Your task to perform on an android device: turn off smart reply in the gmail app Image 0: 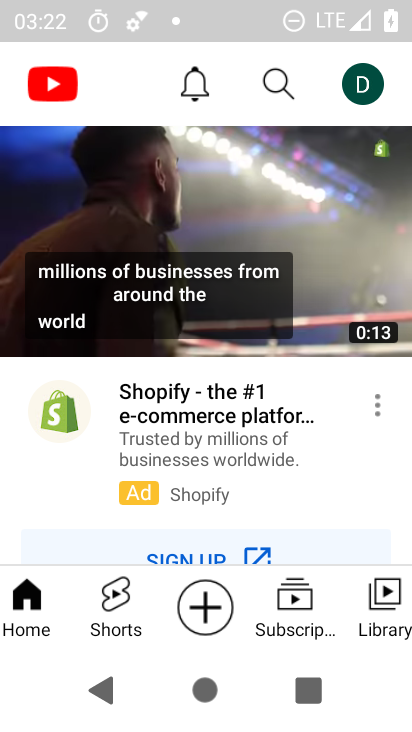
Step 0: press home button
Your task to perform on an android device: turn off smart reply in the gmail app Image 1: 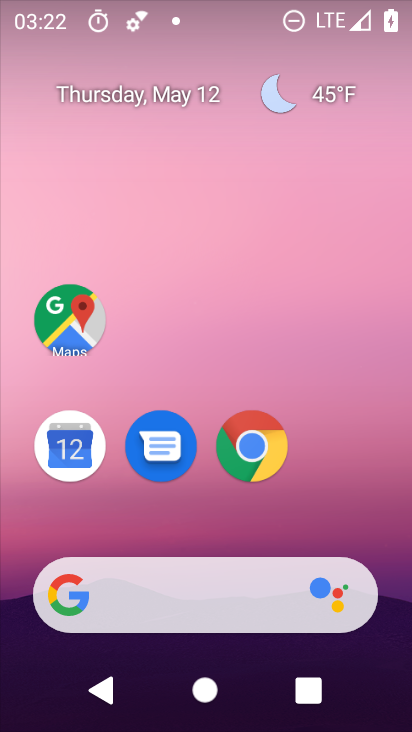
Step 1: drag from (229, 500) to (231, 174)
Your task to perform on an android device: turn off smart reply in the gmail app Image 2: 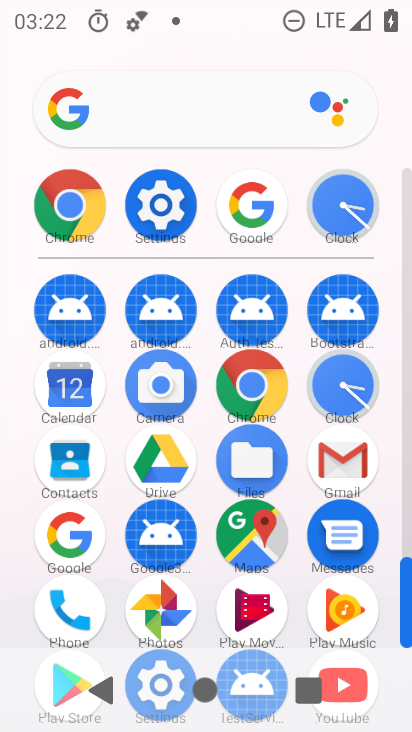
Step 2: click (329, 442)
Your task to perform on an android device: turn off smart reply in the gmail app Image 3: 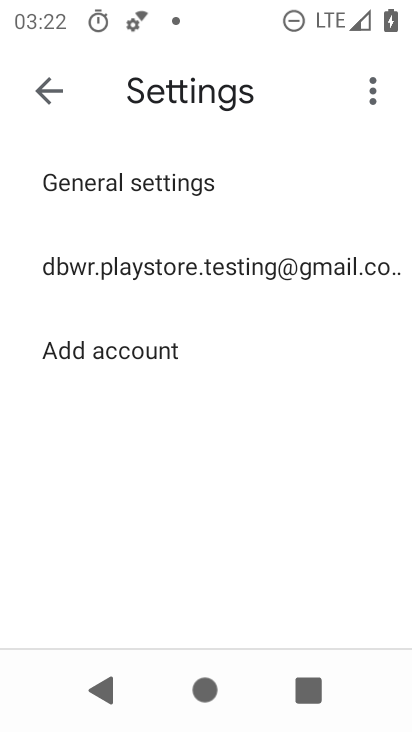
Step 3: click (59, 78)
Your task to perform on an android device: turn off smart reply in the gmail app Image 4: 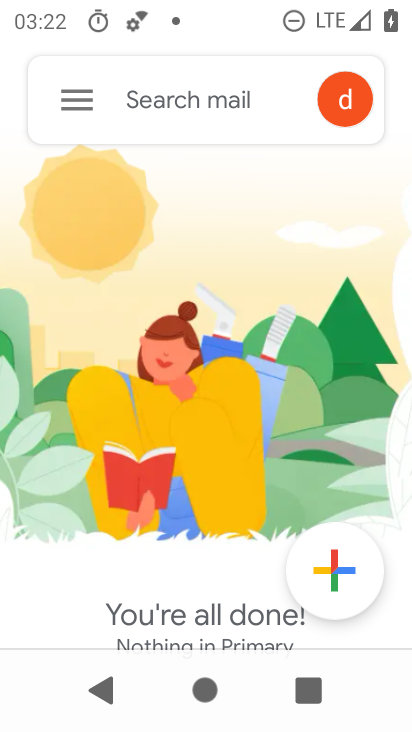
Step 4: click (60, 80)
Your task to perform on an android device: turn off smart reply in the gmail app Image 5: 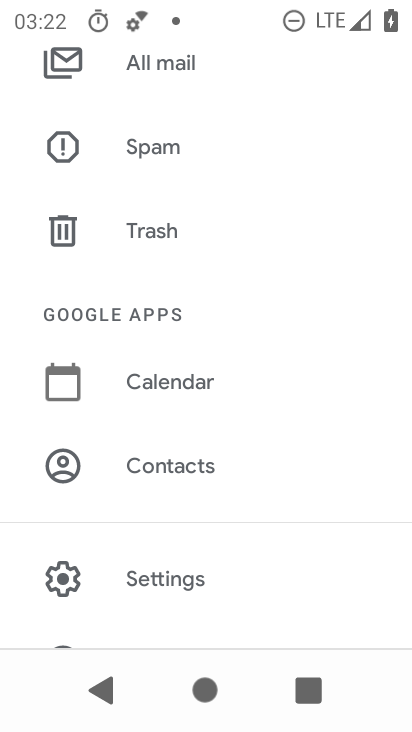
Step 5: drag from (151, 505) to (186, 250)
Your task to perform on an android device: turn off smart reply in the gmail app Image 6: 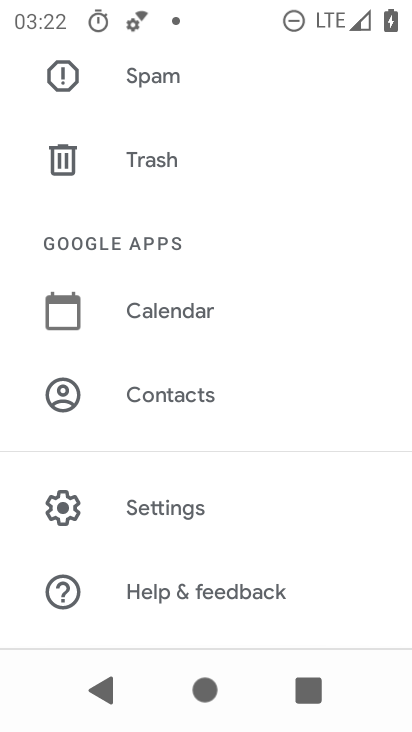
Step 6: click (148, 499)
Your task to perform on an android device: turn off smart reply in the gmail app Image 7: 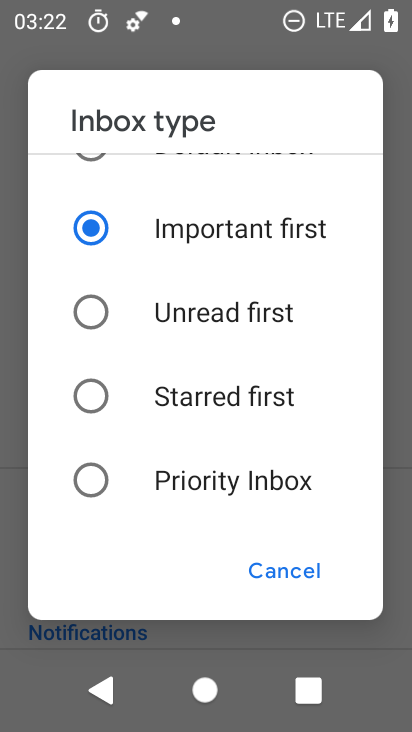
Step 7: drag from (199, 482) to (224, 330)
Your task to perform on an android device: turn off smart reply in the gmail app Image 8: 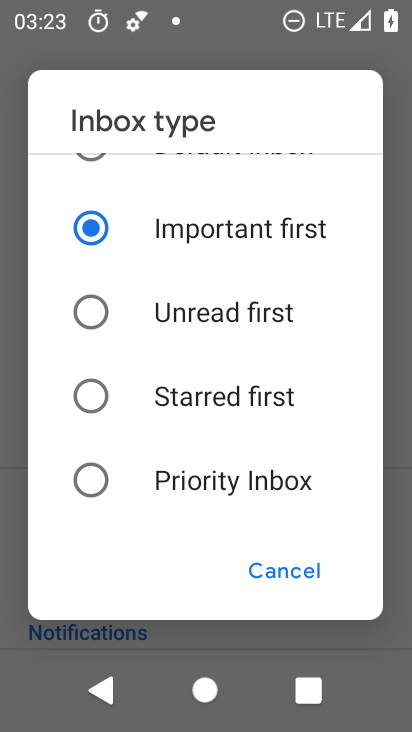
Step 8: press back button
Your task to perform on an android device: turn off smart reply in the gmail app Image 9: 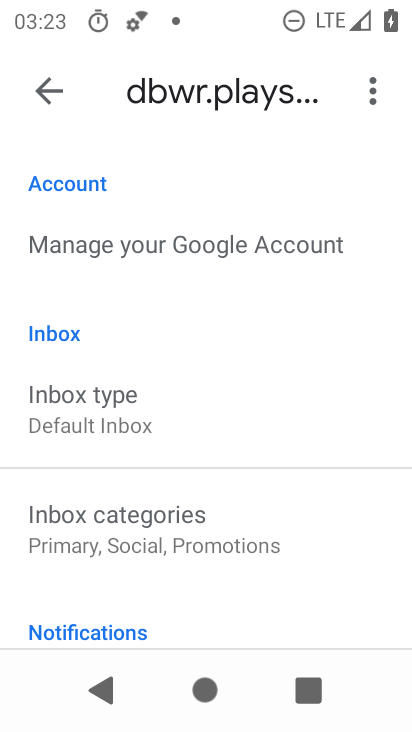
Step 9: drag from (223, 544) to (282, 189)
Your task to perform on an android device: turn off smart reply in the gmail app Image 10: 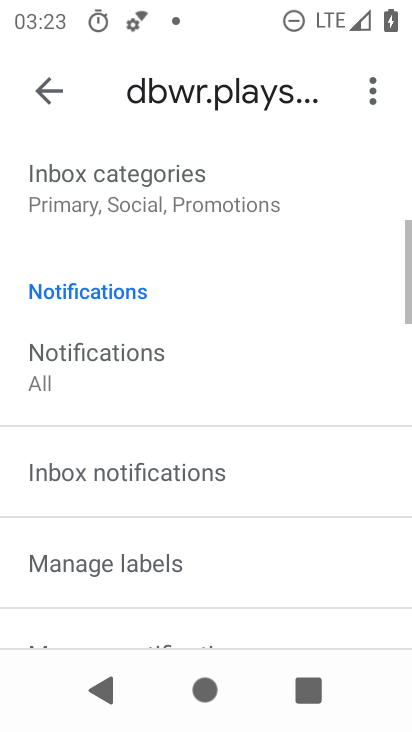
Step 10: drag from (229, 437) to (229, 168)
Your task to perform on an android device: turn off smart reply in the gmail app Image 11: 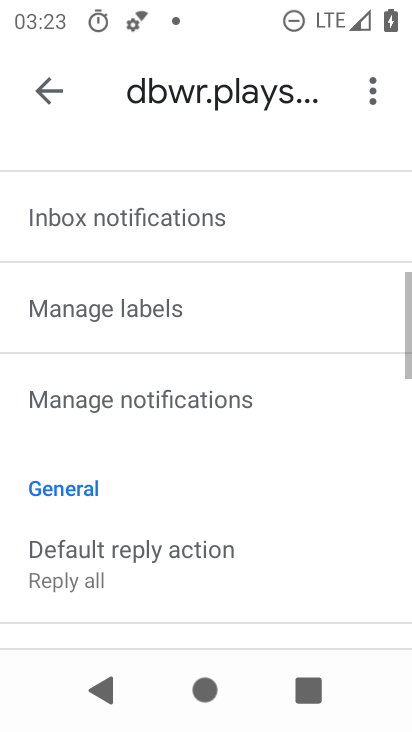
Step 11: drag from (190, 469) to (198, 252)
Your task to perform on an android device: turn off smart reply in the gmail app Image 12: 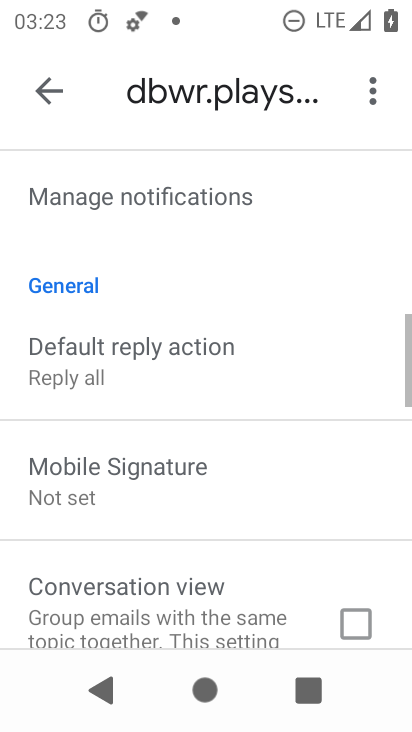
Step 12: drag from (181, 497) to (225, 222)
Your task to perform on an android device: turn off smart reply in the gmail app Image 13: 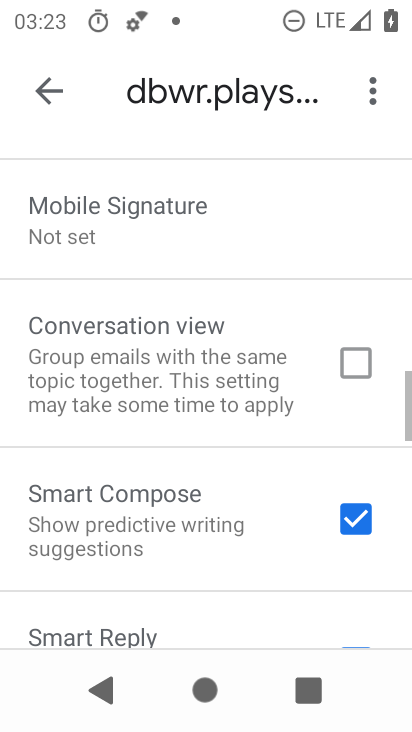
Step 13: drag from (228, 411) to (246, 223)
Your task to perform on an android device: turn off smart reply in the gmail app Image 14: 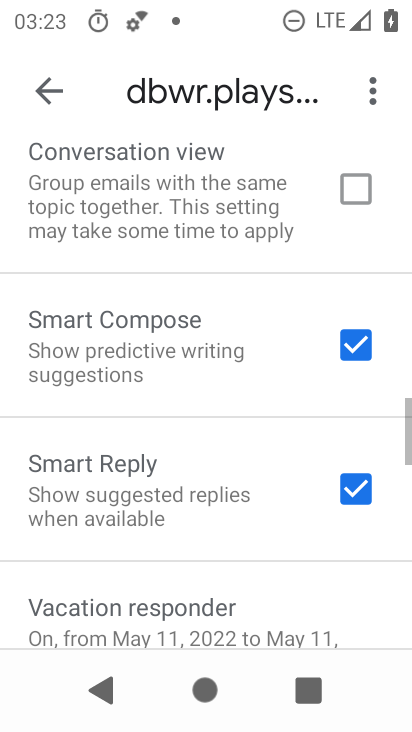
Step 14: drag from (243, 504) to (255, 311)
Your task to perform on an android device: turn off smart reply in the gmail app Image 15: 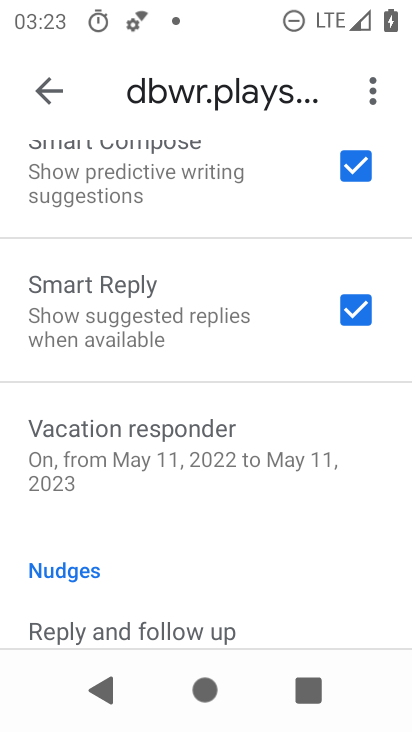
Step 15: click (344, 311)
Your task to perform on an android device: turn off smart reply in the gmail app Image 16: 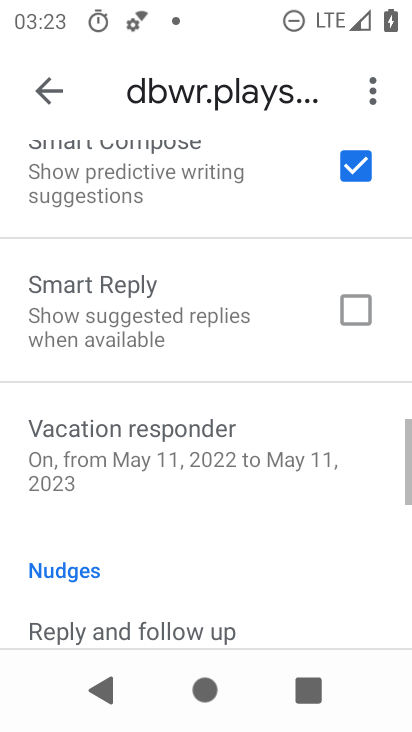
Step 16: task complete